Your task to perform on an android device: open app "Duolingo: language lessons" (install if not already installed) Image 0: 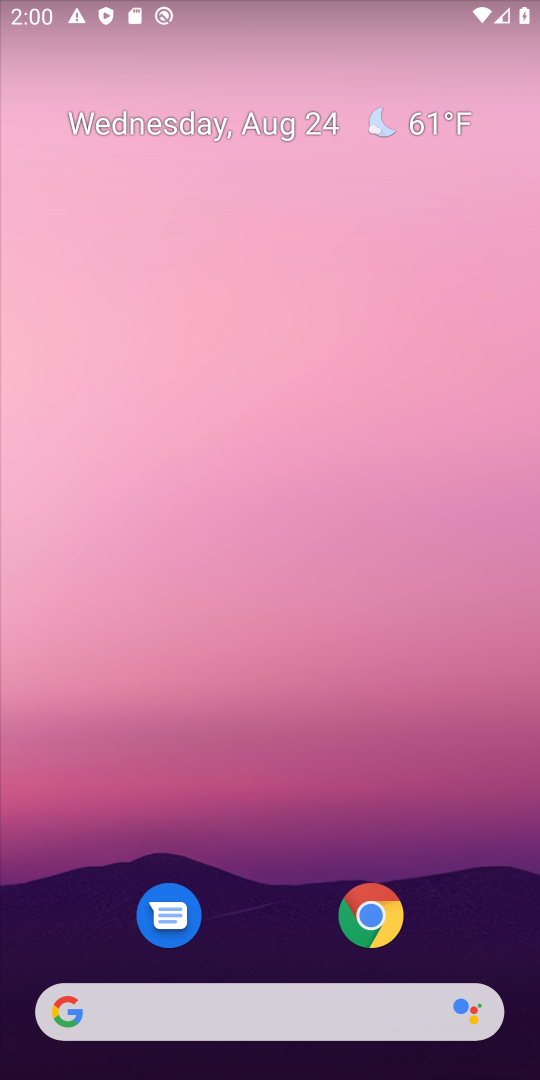
Step 0: drag from (259, 797) to (261, 387)
Your task to perform on an android device: open app "Duolingo: language lessons" (install if not already installed) Image 1: 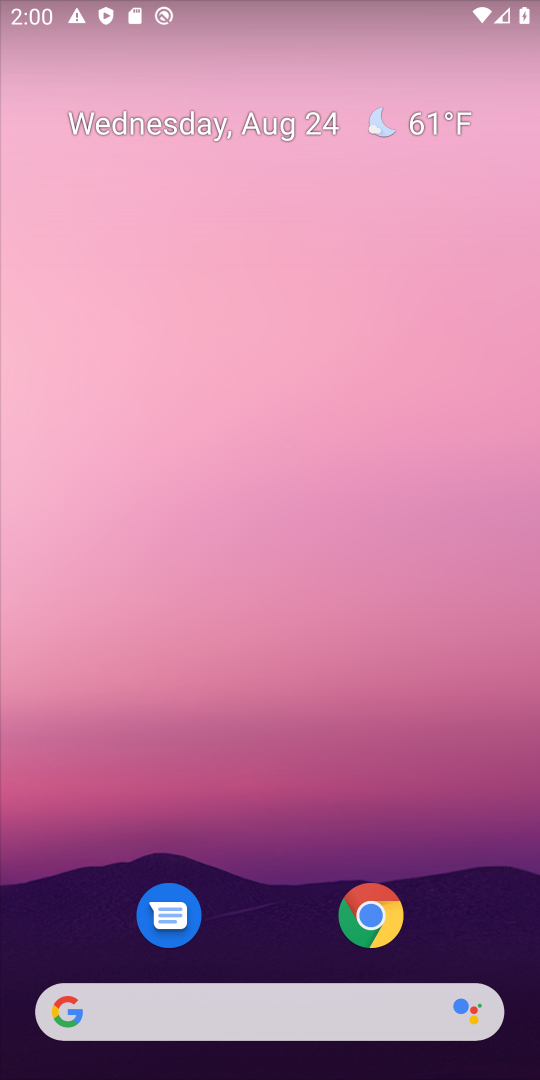
Step 1: drag from (254, 844) to (257, 370)
Your task to perform on an android device: open app "Duolingo: language lessons" (install if not already installed) Image 2: 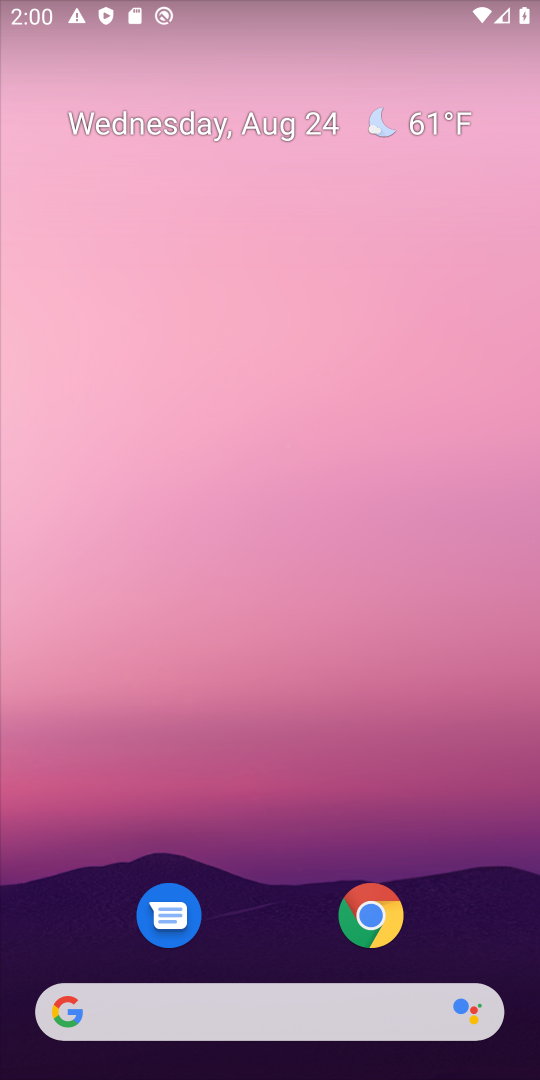
Step 2: drag from (255, 859) to (281, 242)
Your task to perform on an android device: open app "Duolingo: language lessons" (install if not already installed) Image 3: 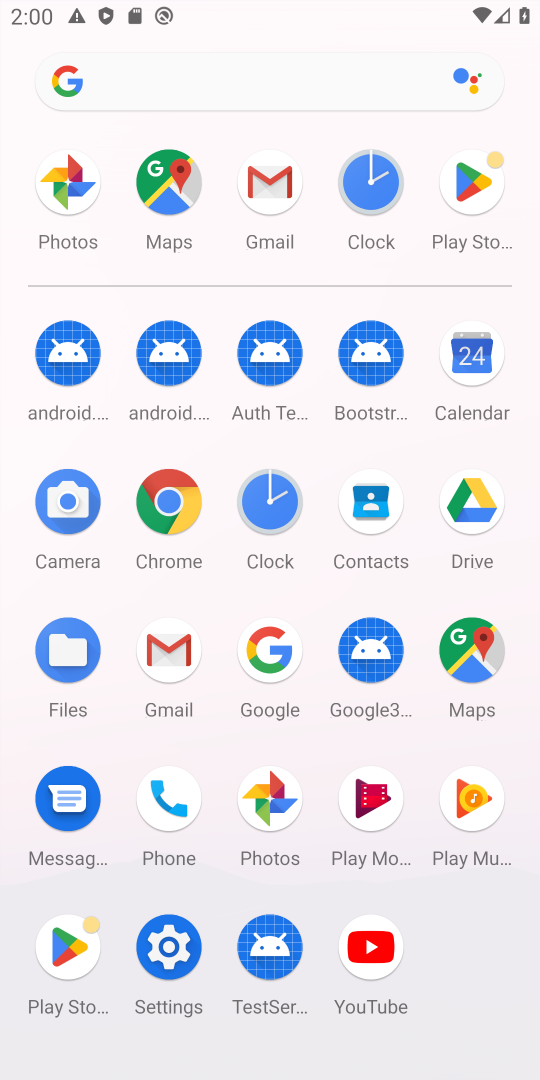
Step 3: click (467, 198)
Your task to perform on an android device: open app "Duolingo: language lessons" (install if not already installed) Image 4: 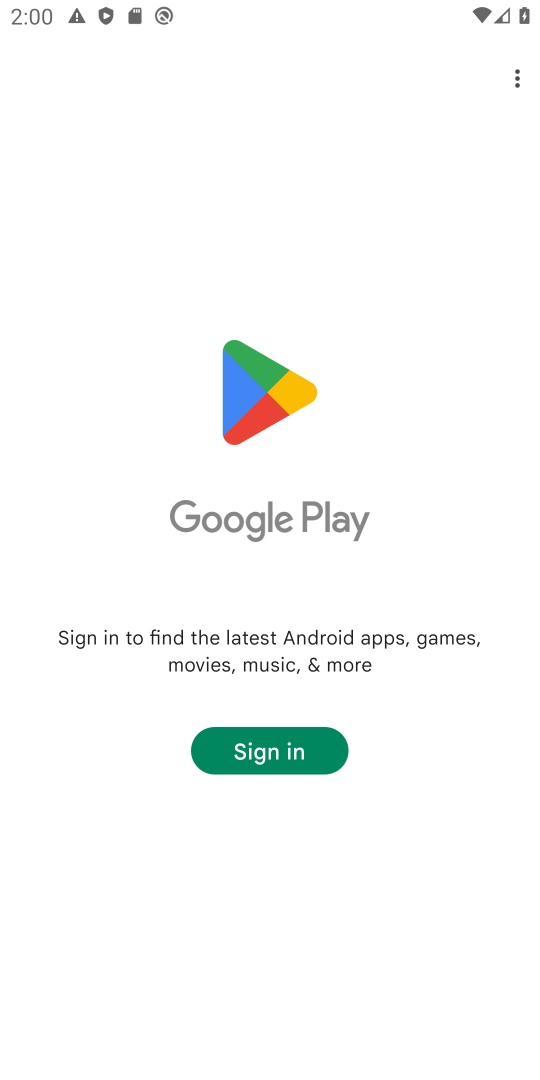
Step 4: task complete